Your task to perform on an android device: Open Yahoo.com Image 0: 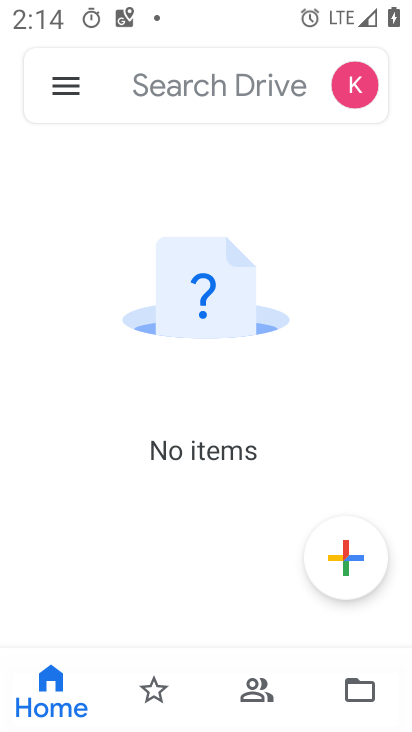
Step 0: press home button
Your task to perform on an android device: Open Yahoo.com Image 1: 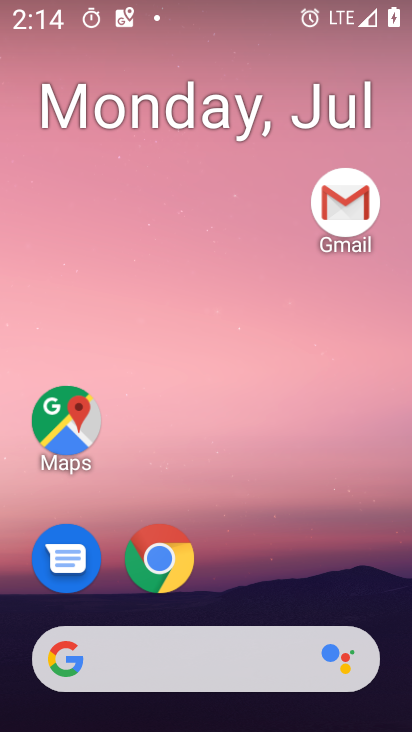
Step 1: drag from (307, 562) to (293, 166)
Your task to perform on an android device: Open Yahoo.com Image 2: 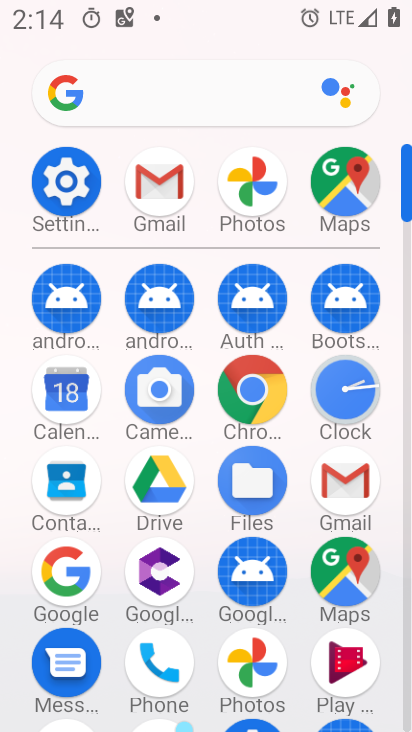
Step 2: click (255, 401)
Your task to perform on an android device: Open Yahoo.com Image 3: 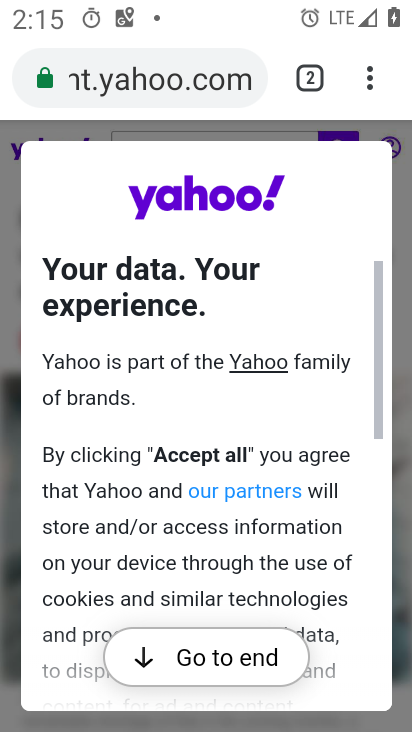
Step 3: task complete